Your task to perform on an android device: Check the news Image 0: 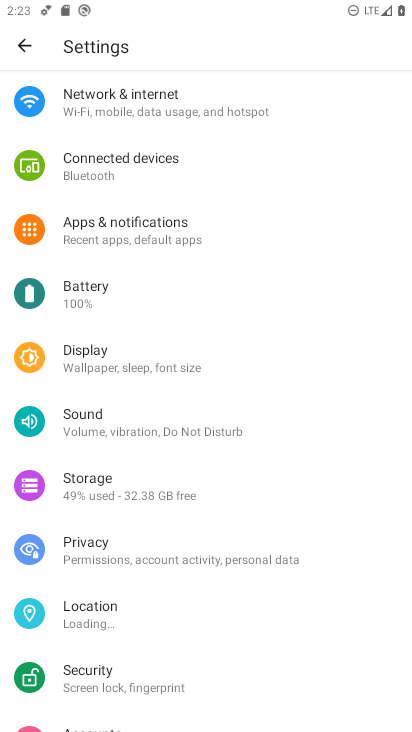
Step 0: press home button
Your task to perform on an android device: Check the news Image 1: 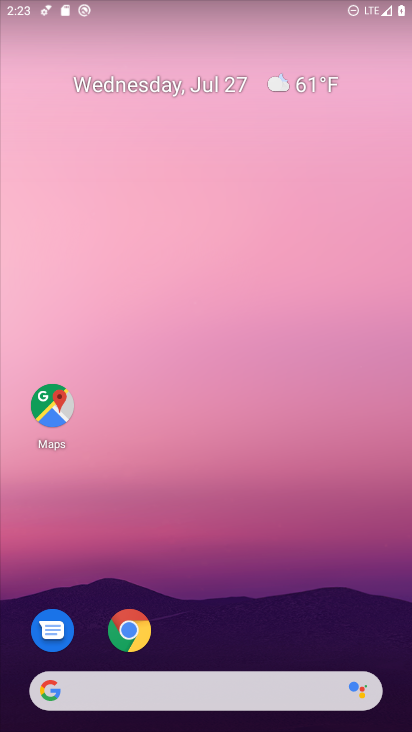
Step 1: click (131, 688)
Your task to perform on an android device: Check the news Image 2: 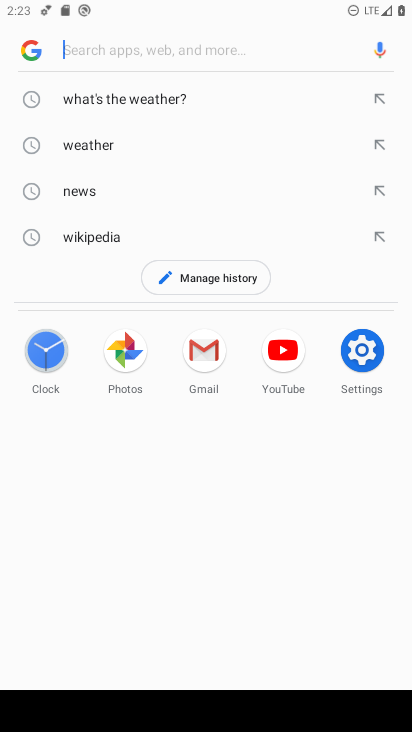
Step 2: type "news"
Your task to perform on an android device: Check the news Image 3: 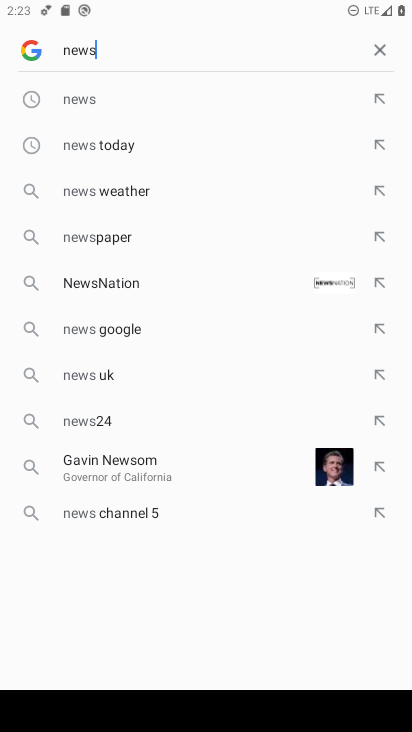
Step 3: click (296, 92)
Your task to perform on an android device: Check the news Image 4: 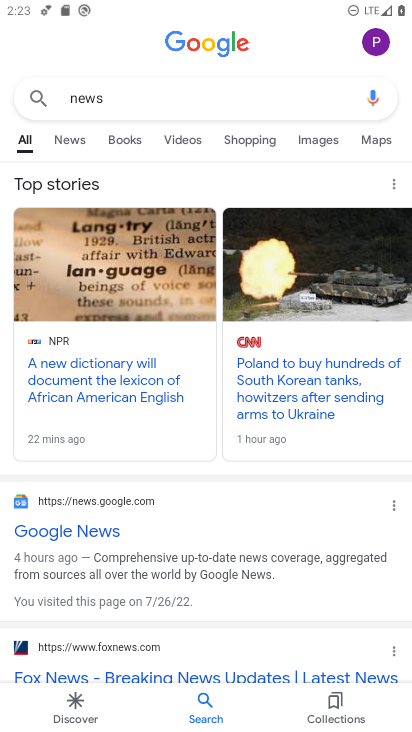
Step 4: click (74, 136)
Your task to perform on an android device: Check the news Image 5: 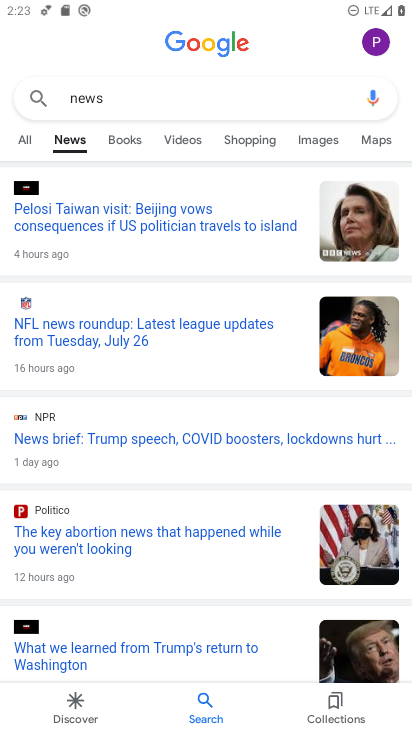
Step 5: task complete